Your task to perform on an android device: Is it going to rain this weekend? Image 0: 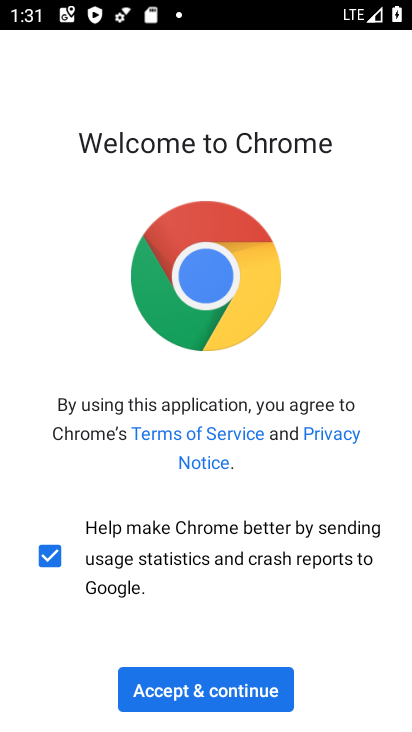
Step 0: press home button
Your task to perform on an android device: Is it going to rain this weekend? Image 1: 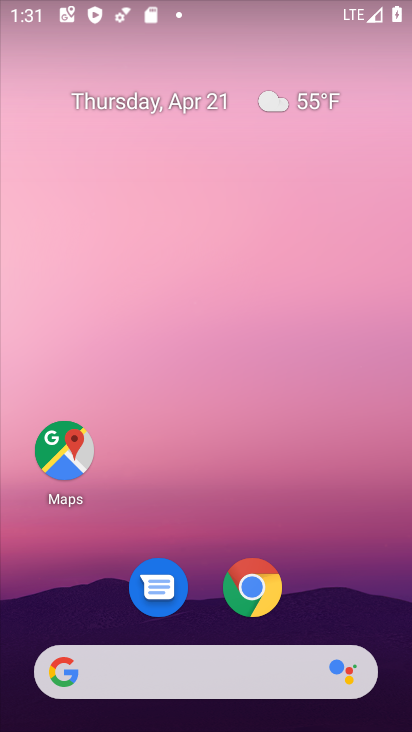
Step 1: click (277, 106)
Your task to perform on an android device: Is it going to rain this weekend? Image 2: 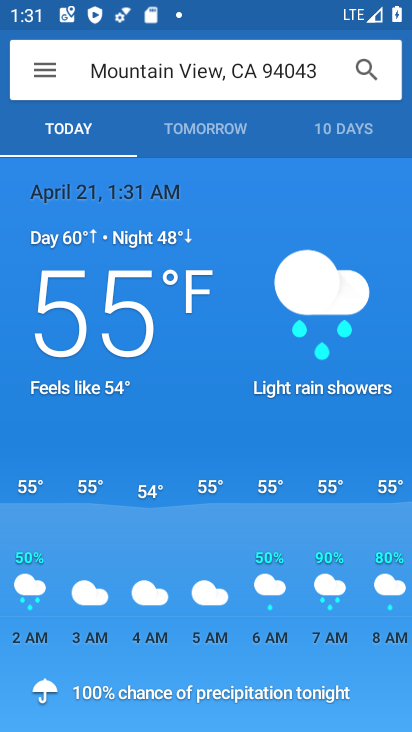
Step 2: click (342, 130)
Your task to perform on an android device: Is it going to rain this weekend? Image 3: 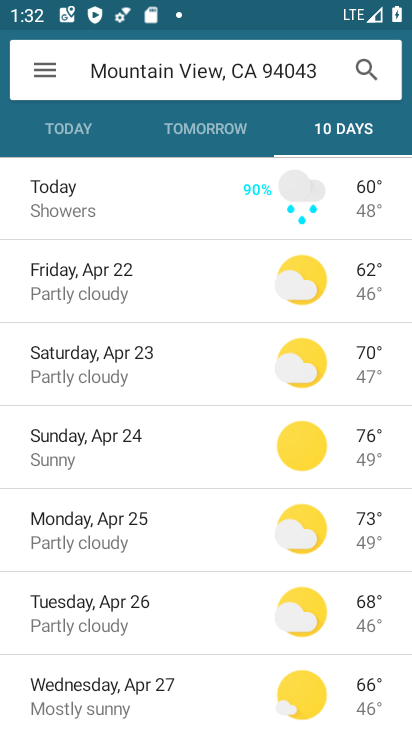
Step 3: task complete